Your task to perform on an android device: What's the weather? Image 0: 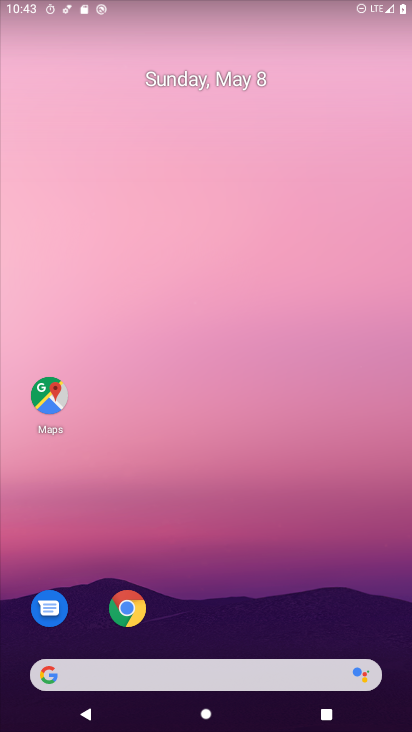
Step 0: click (127, 610)
Your task to perform on an android device: What's the weather? Image 1: 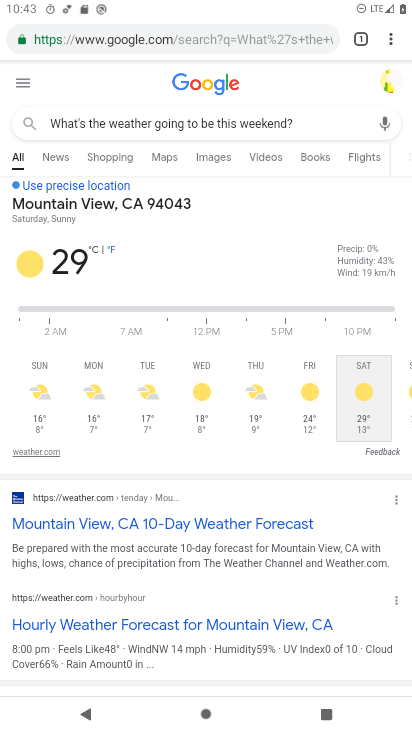
Step 1: click (165, 36)
Your task to perform on an android device: What's the weather? Image 2: 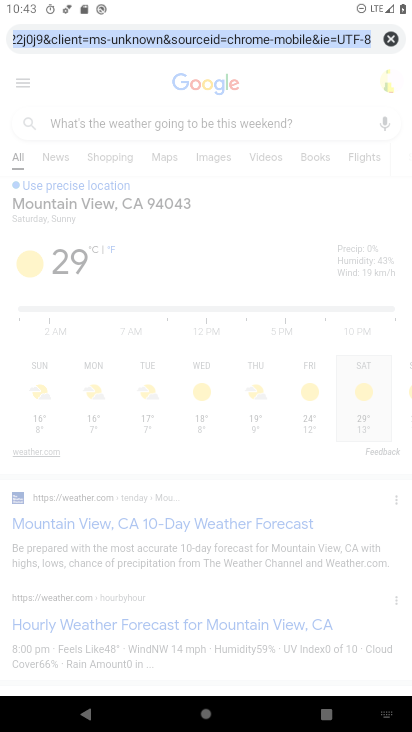
Step 2: type "weather"
Your task to perform on an android device: What's the weather? Image 3: 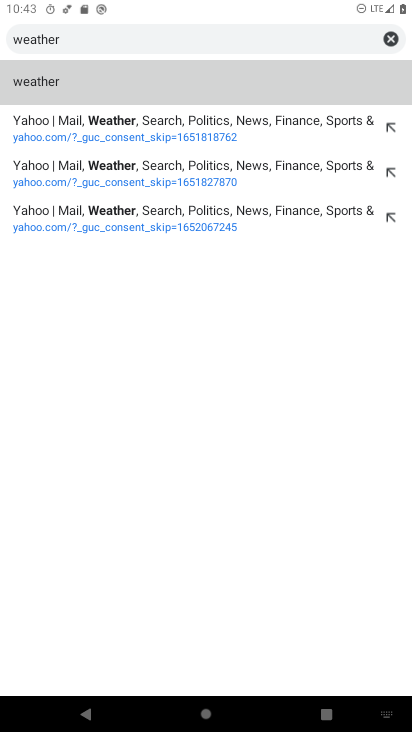
Step 3: click (117, 87)
Your task to perform on an android device: What's the weather? Image 4: 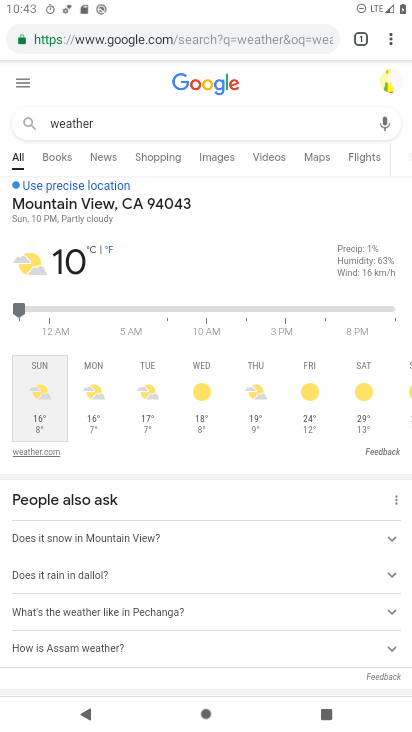
Step 4: task complete